Your task to perform on an android device: change the clock display to analog Image 0: 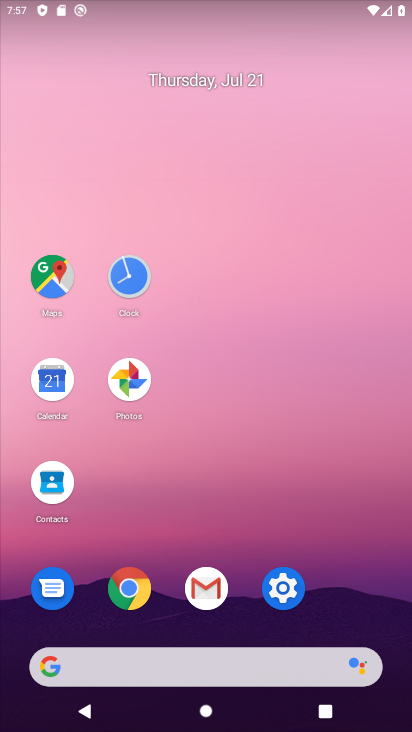
Step 0: press home button
Your task to perform on an android device: change the clock display to analog Image 1: 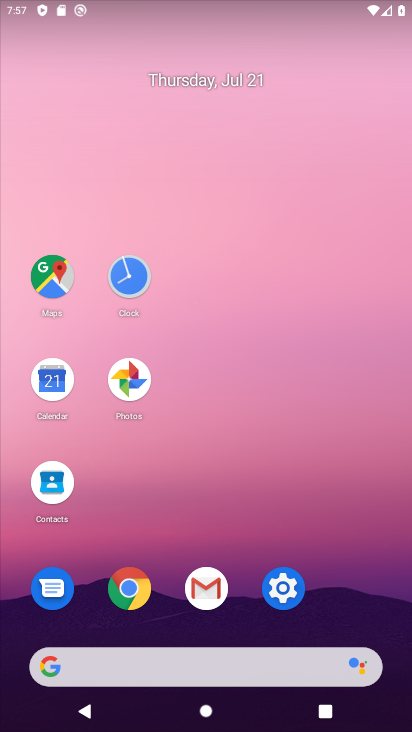
Step 1: click (126, 280)
Your task to perform on an android device: change the clock display to analog Image 2: 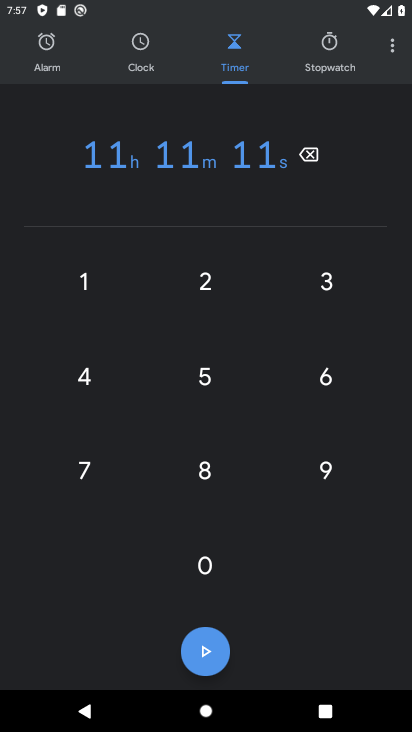
Step 2: click (394, 50)
Your task to perform on an android device: change the clock display to analog Image 3: 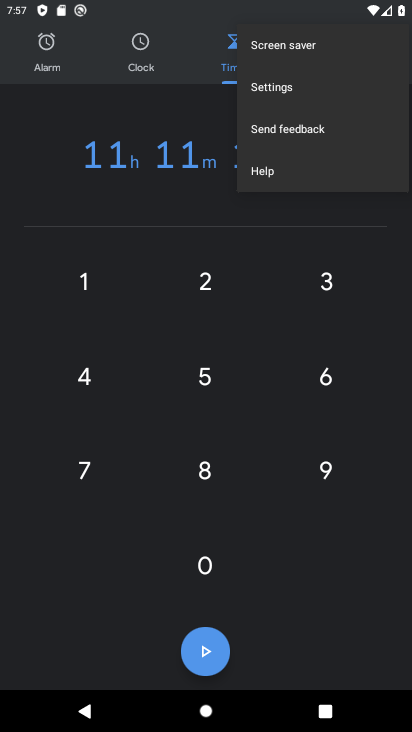
Step 3: click (269, 96)
Your task to perform on an android device: change the clock display to analog Image 4: 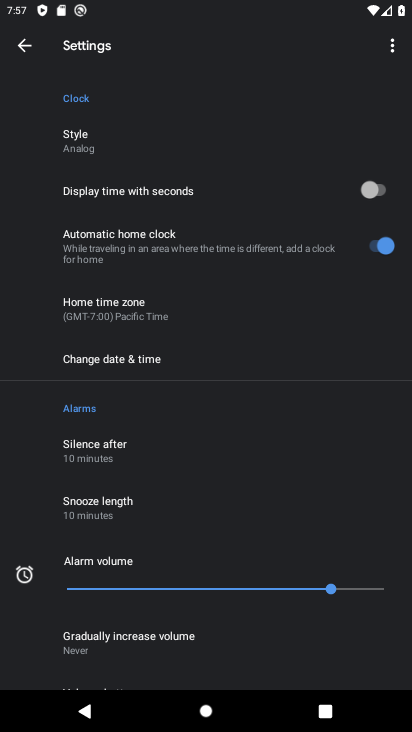
Step 4: task complete